Your task to perform on an android device: delete a single message in the gmail app Image 0: 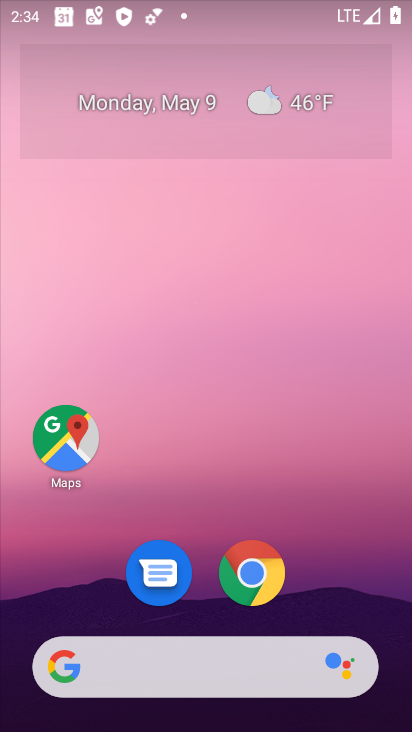
Step 0: drag from (213, 595) to (262, 129)
Your task to perform on an android device: delete a single message in the gmail app Image 1: 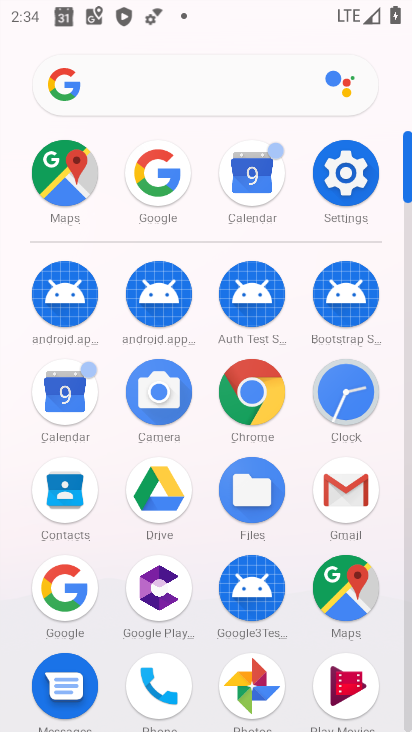
Step 1: click (344, 489)
Your task to perform on an android device: delete a single message in the gmail app Image 2: 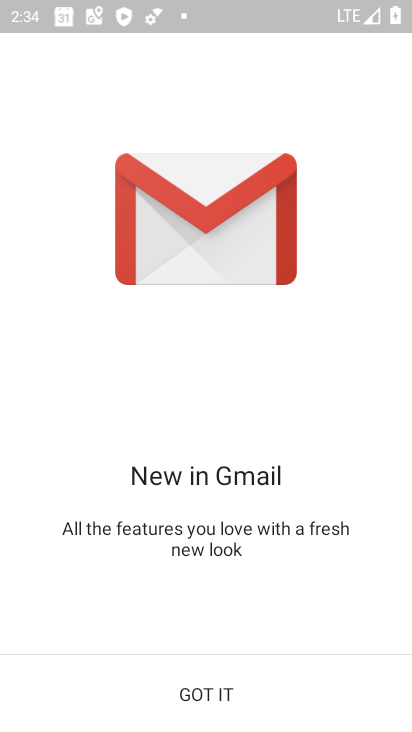
Step 2: click (204, 690)
Your task to perform on an android device: delete a single message in the gmail app Image 3: 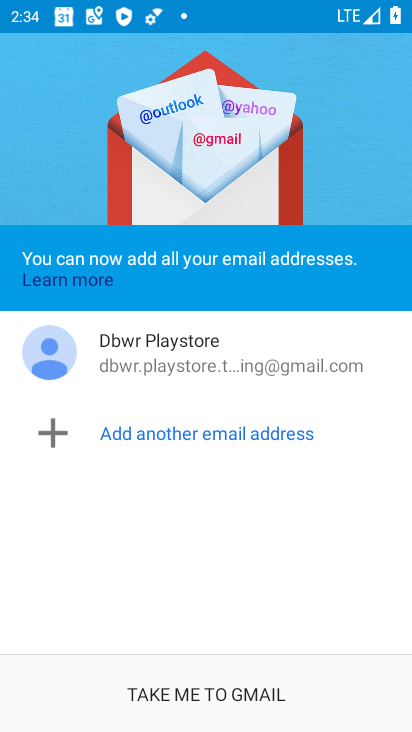
Step 3: click (203, 699)
Your task to perform on an android device: delete a single message in the gmail app Image 4: 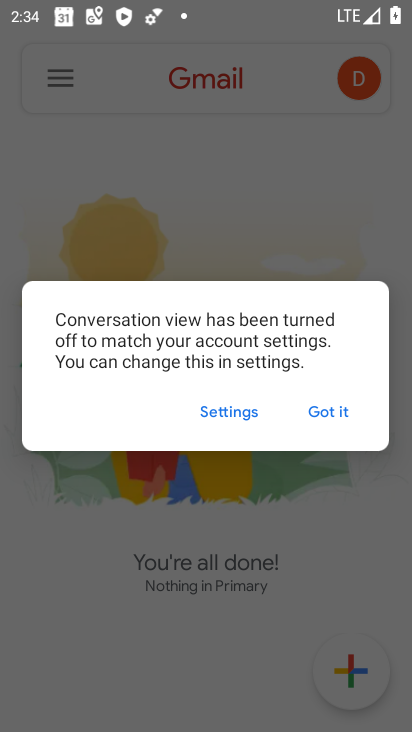
Step 4: click (345, 403)
Your task to perform on an android device: delete a single message in the gmail app Image 5: 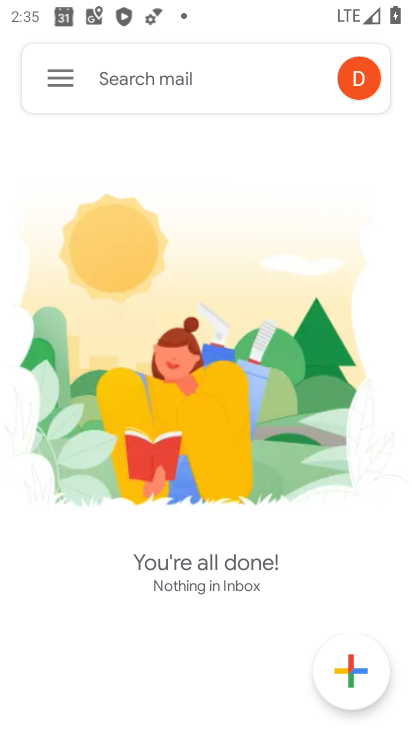
Step 5: click (47, 90)
Your task to perform on an android device: delete a single message in the gmail app Image 6: 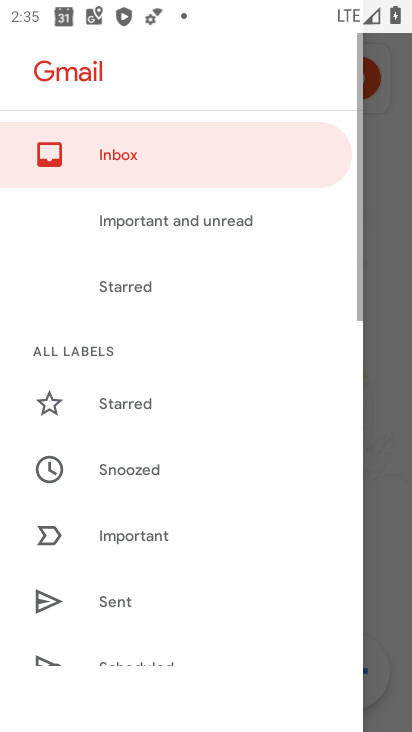
Step 6: drag from (157, 566) to (175, 224)
Your task to perform on an android device: delete a single message in the gmail app Image 7: 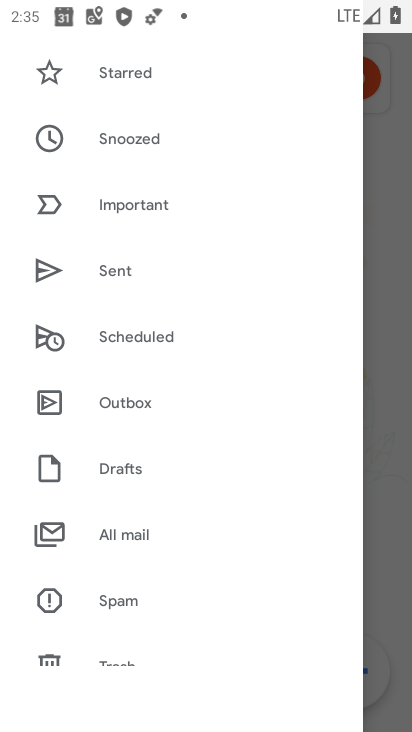
Step 7: click (140, 528)
Your task to perform on an android device: delete a single message in the gmail app Image 8: 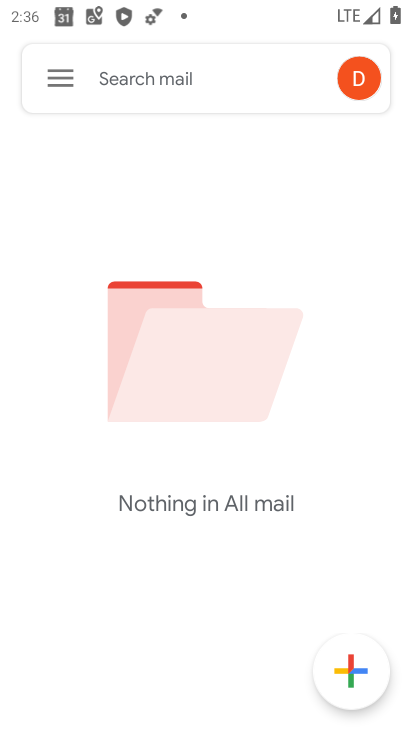
Step 8: task complete